Your task to perform on an android device: check out phone information Image 0: 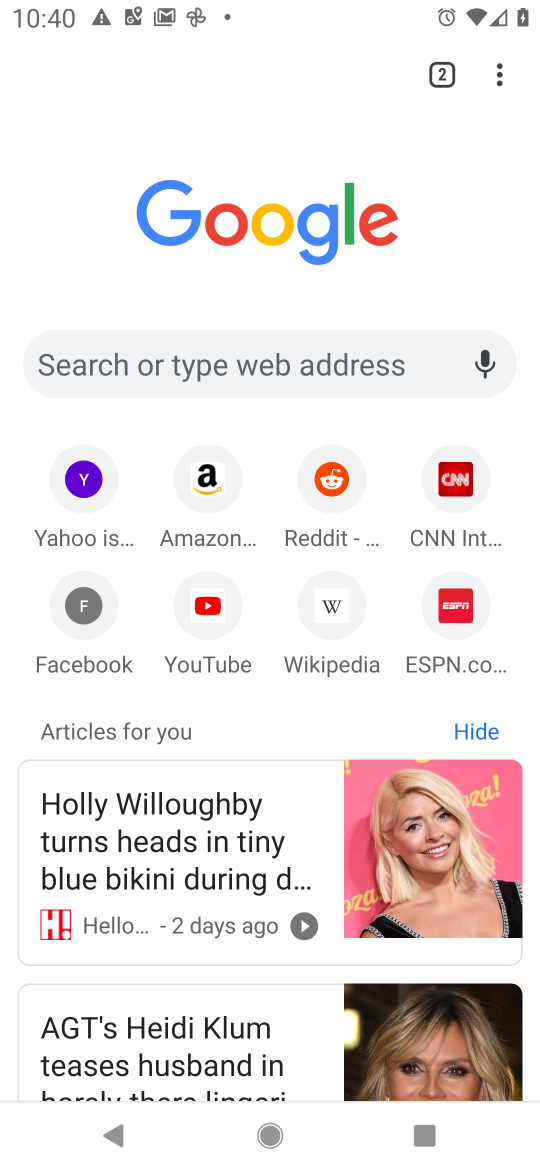
Step 0: press home button
Your task to perform on an android device: check out phone information Image 1: 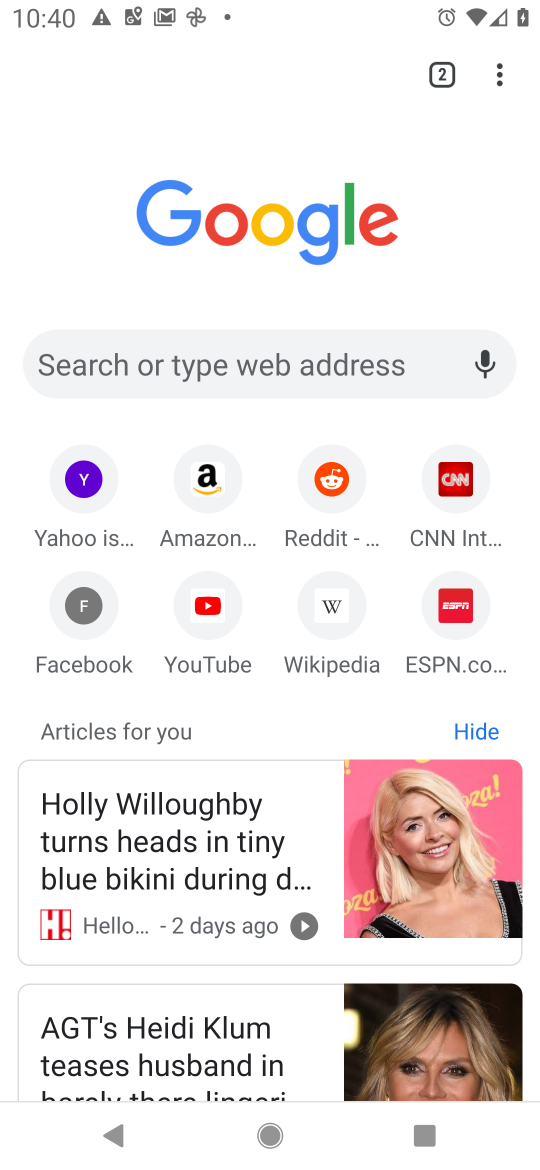
Step 1: drag from (476, 1091) to (198, 47)
Your task to perform on an android device: check out phone information Image 2: 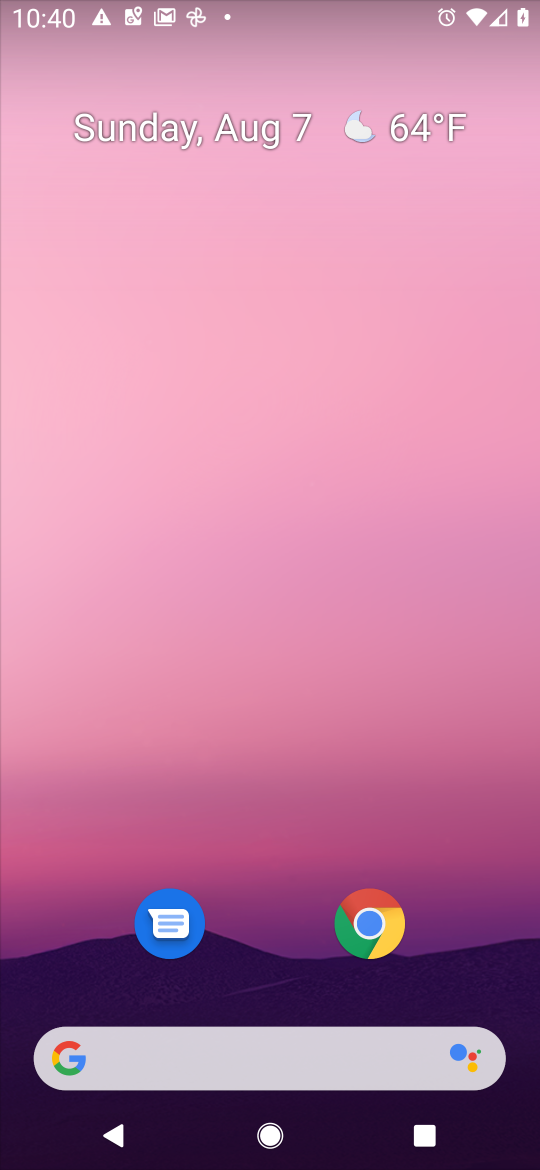
Step 2: drag from (427, 853) to (290, 20)
Your task to perform on an android device: check out phone information Image 3: 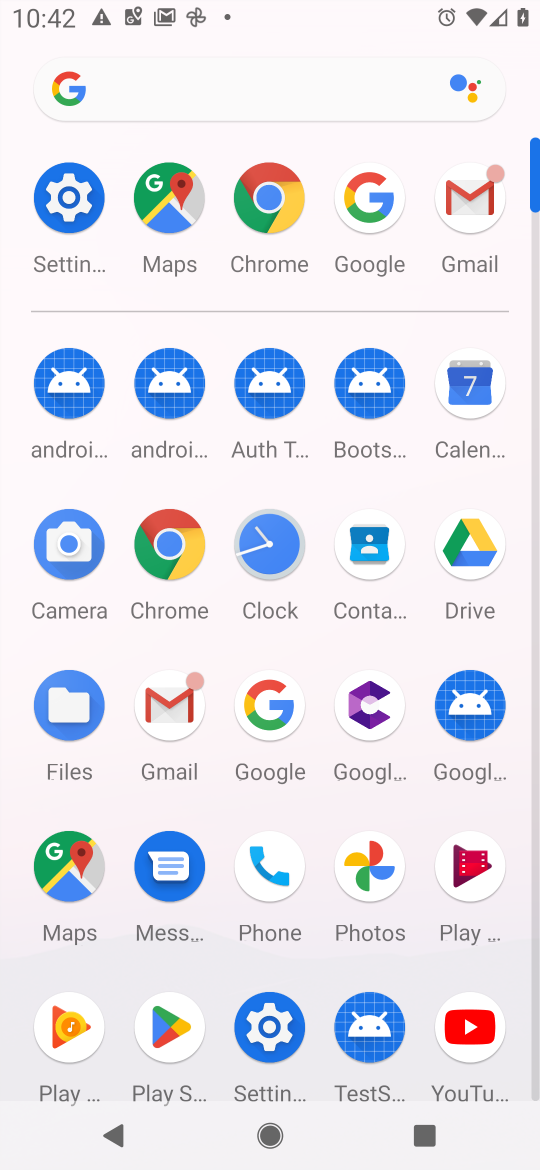
Step 3: click (275, 1015)
Your task to perform on an android device: check out phone information Image 4: 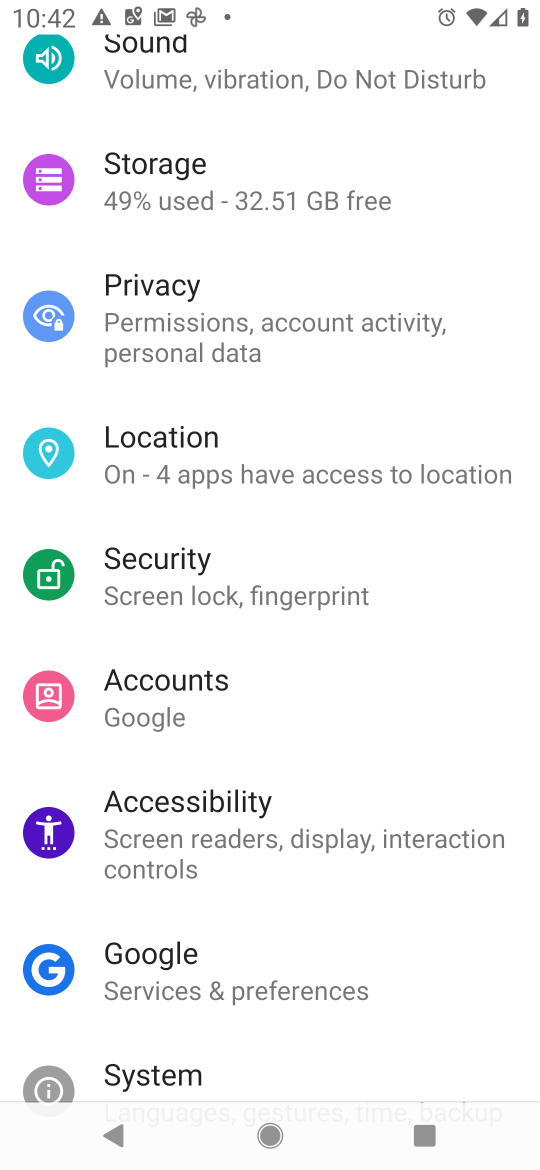
Step 4: task complete